Your task to perform on an android device: check android version Image 0: 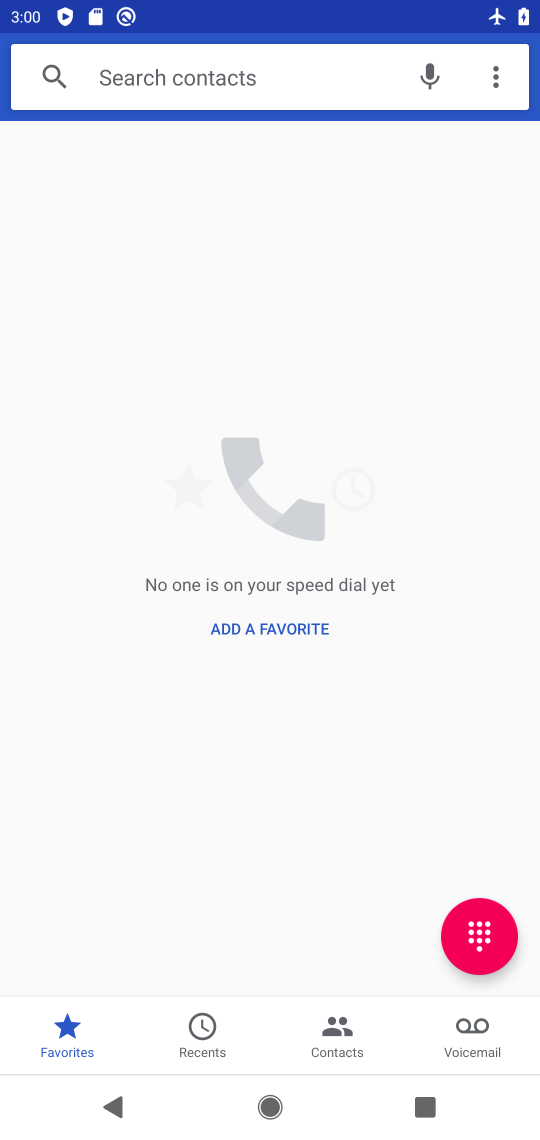
Step 0: press home button
Your task to perform on an android device: check android version Image 1: 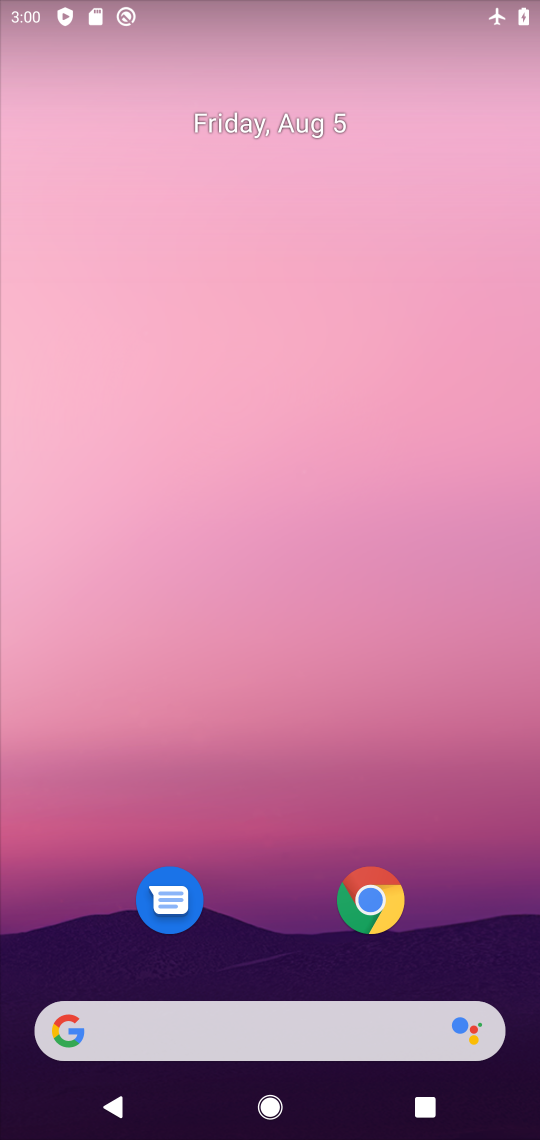
Step 1: drag from (266, 945) to (303, 274)
Your task to perform on an android device: check android version Image 2: 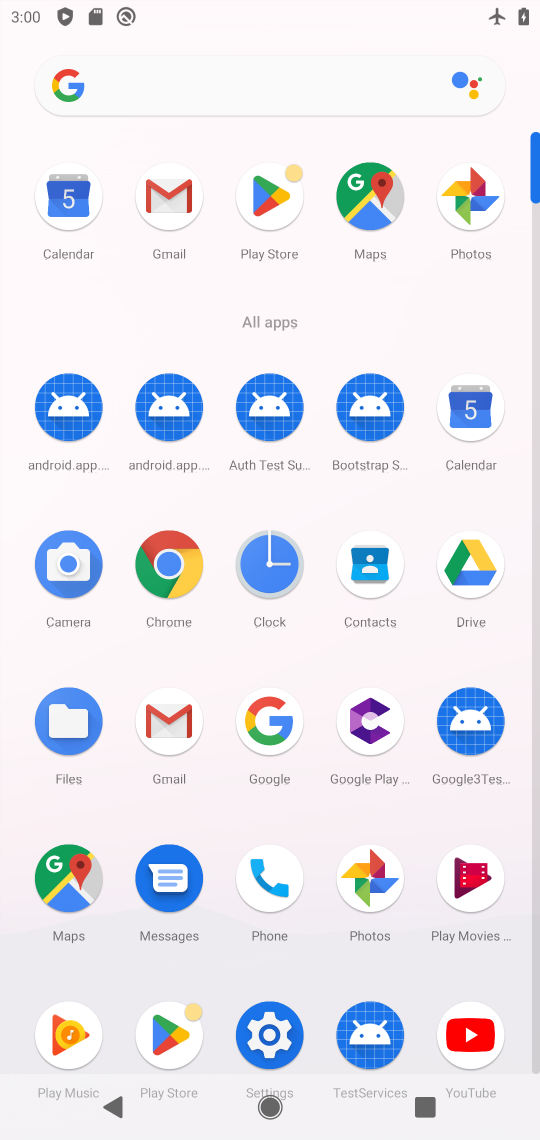
Step 2: click (296, 1021)
Your task to perform on an android device: check android version Image 3: 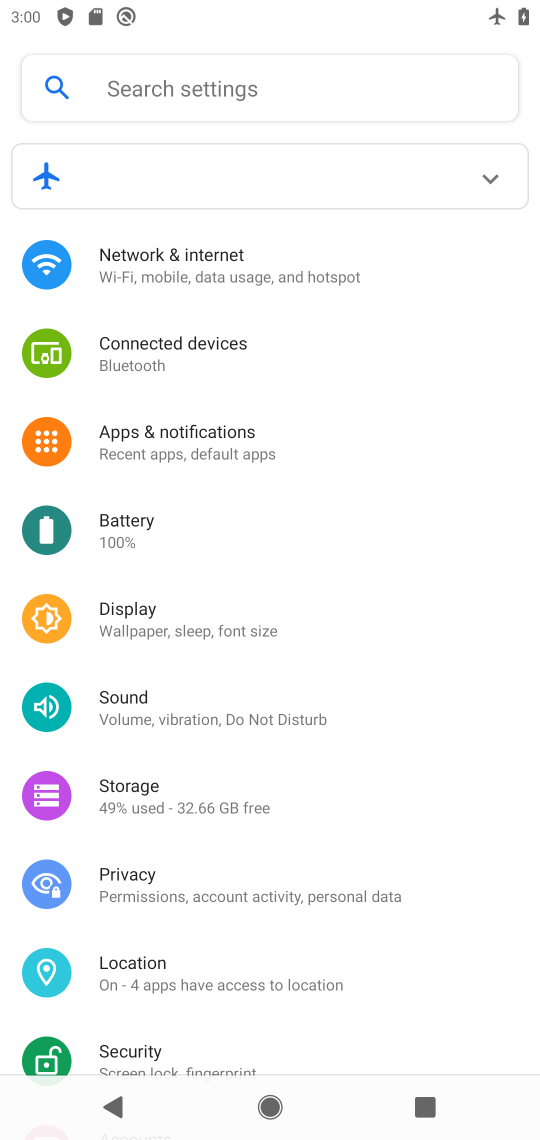
Step 3: drag from (313, 1030) to (230, 445)
Your task to perform on an android device: check android version Image 4: 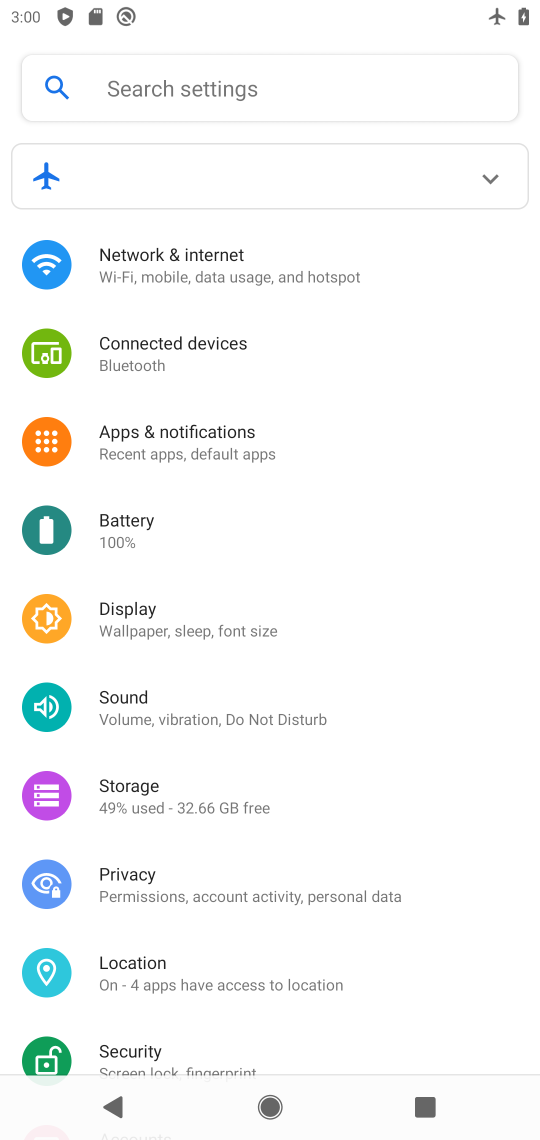
Step 4: drag from (434, 971) to (403, 406)
Your task to perform on an android device: check android version Image 5: 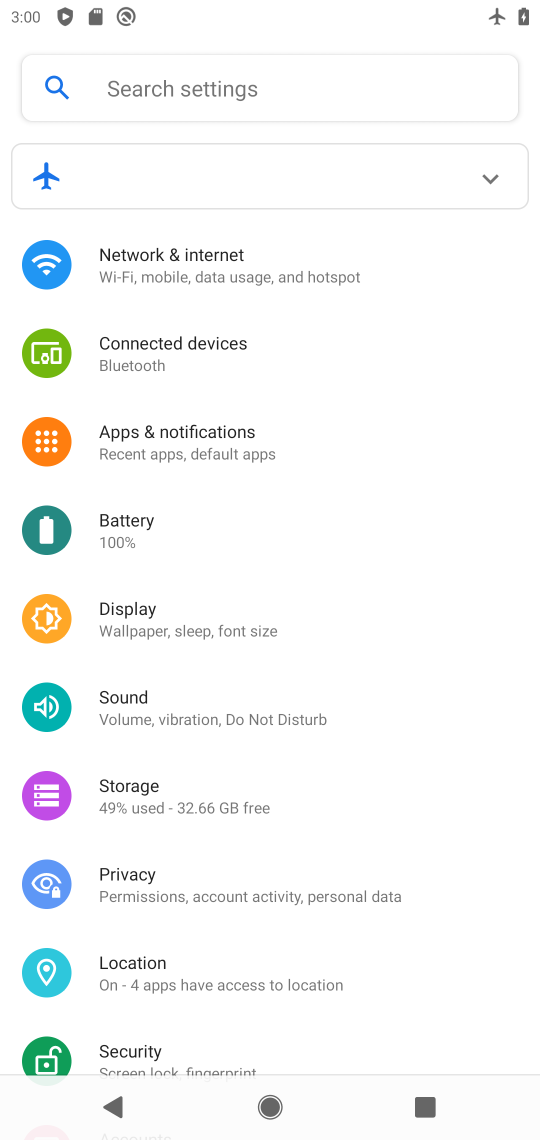
Step 5: drag from (400, 1064) to (329, 290)
Your task to perform on an android device: check android version Image 6: 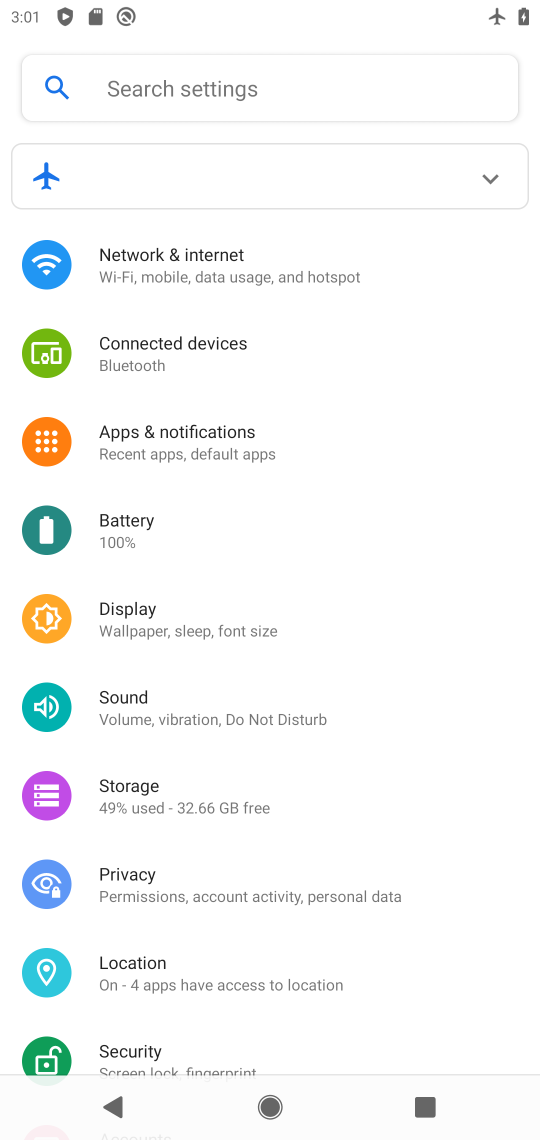
Step 6: drag from (356, 967) to (364, 261)
Your task to perform on an android device: check android version Image 7: 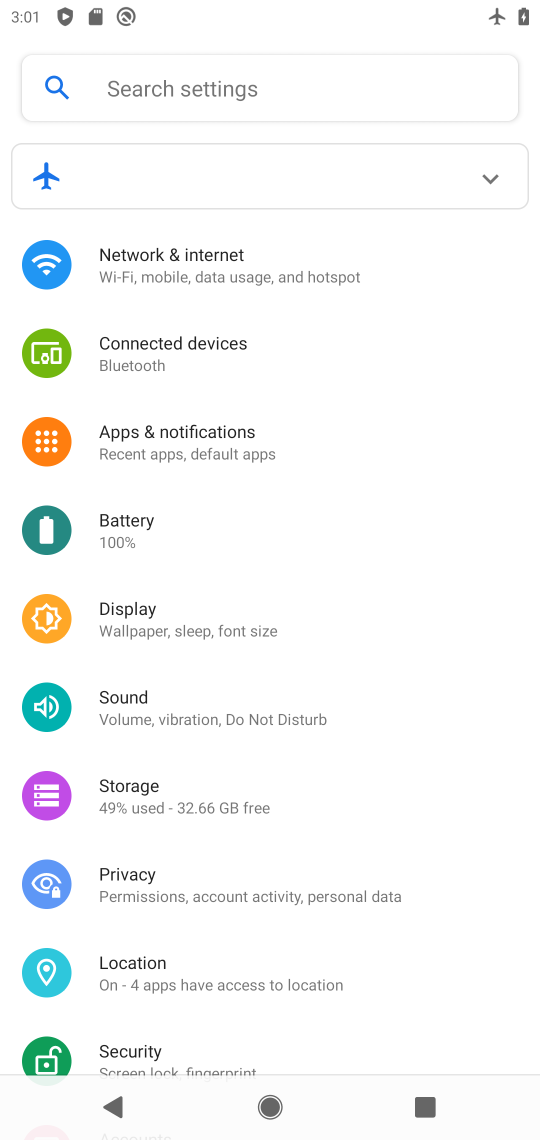
Step 7: drag from (411, 1053) to (379, 416)
Your task to perform on an android device: check android version Image 8: 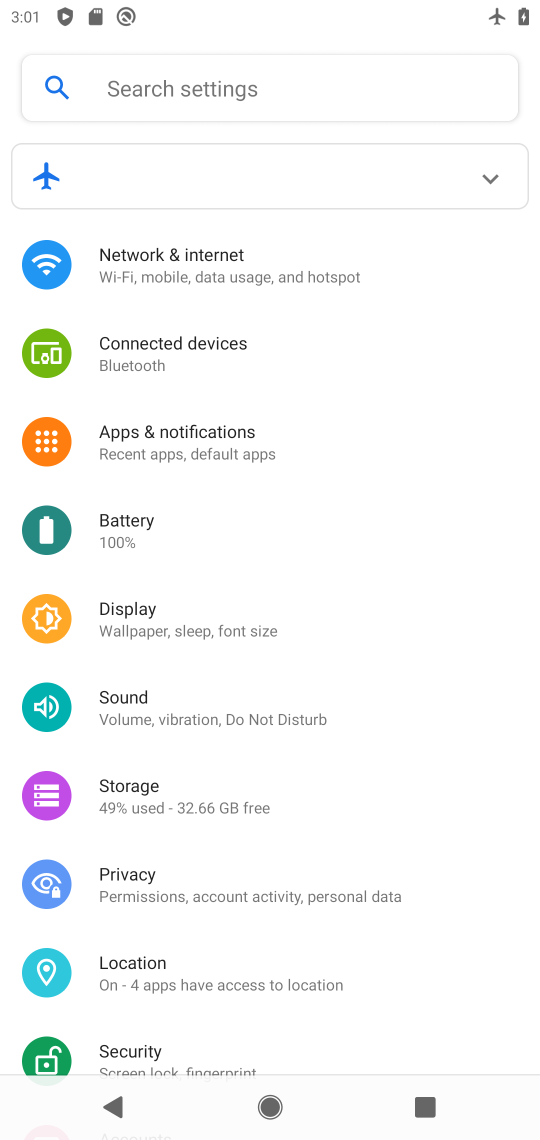
Step 8: drag from (365, 1048) to (298, 401)
Your task to perform on an android device: check android version Image 9: 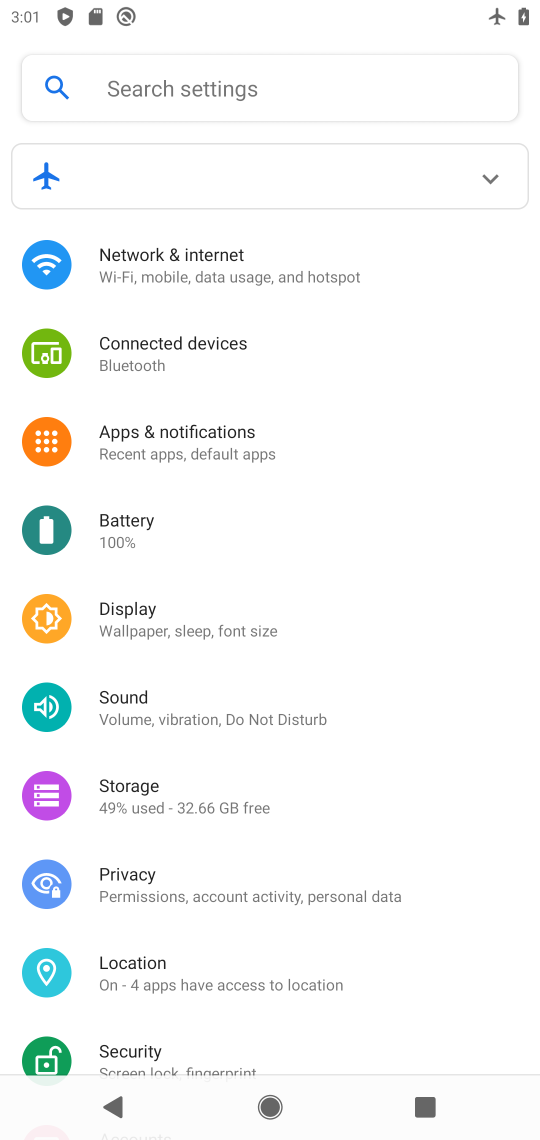
Step 9: drag from (399, 1069) to (337, 404)
Your task to perform on an android device: check android version Image 10: 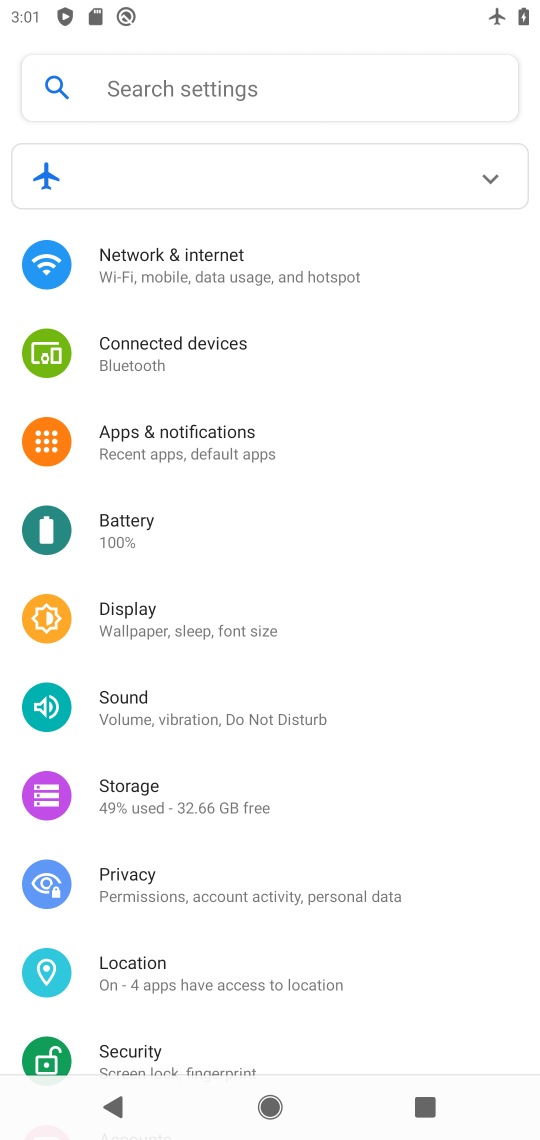
Step 10: drag from (439, 937) to (293, 341)
Your task to perform on an android device: check android version Image 11: 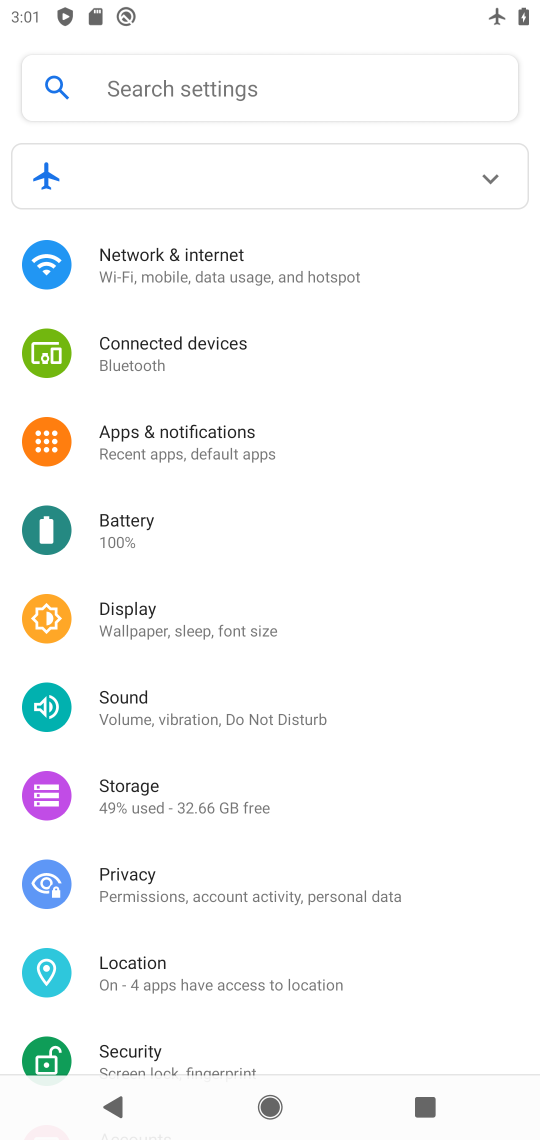
Step 11: drag from (328, 1038) to (295, 218)
Your task to perform on an android device: check android version Image 12: 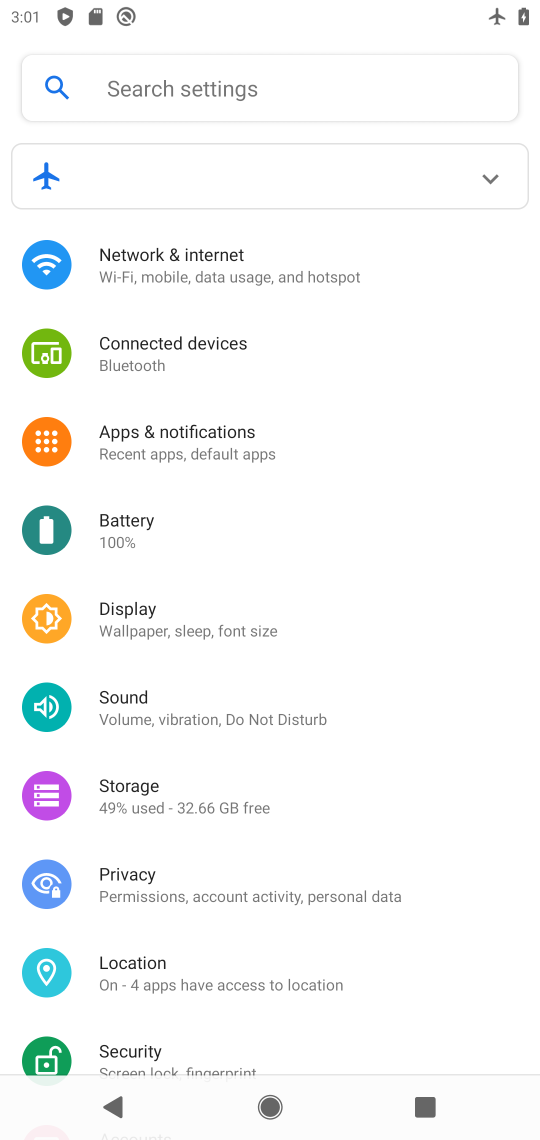
Step 12: drag from (362, 952) to (385, 285)
Your task to perform on an android device: check android version Image 13: 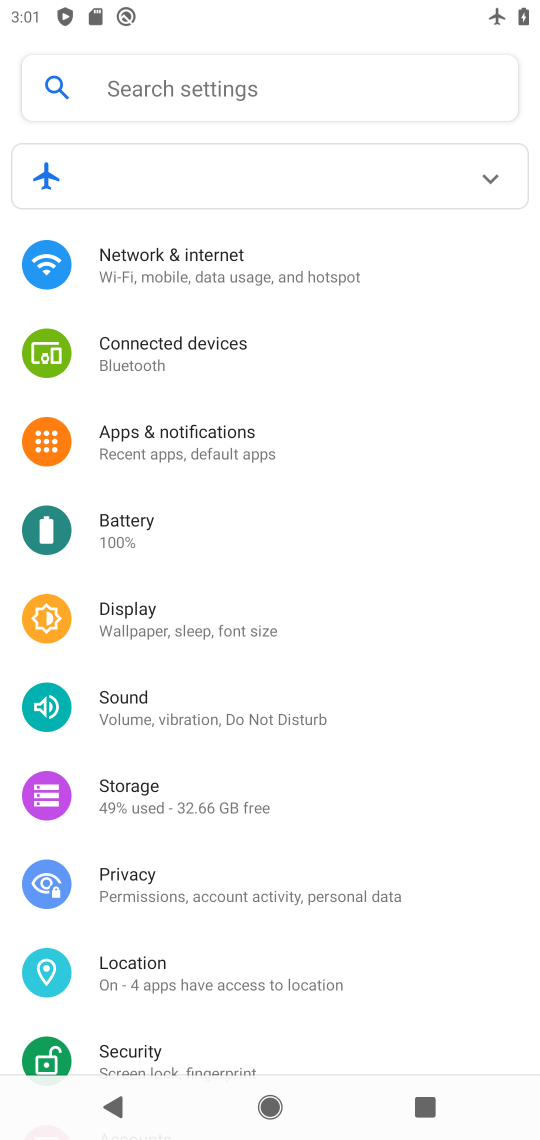
Step 13: drag from (410, 1033) to (377, 331)
Your task to perform on an android device: check android version Image 14: 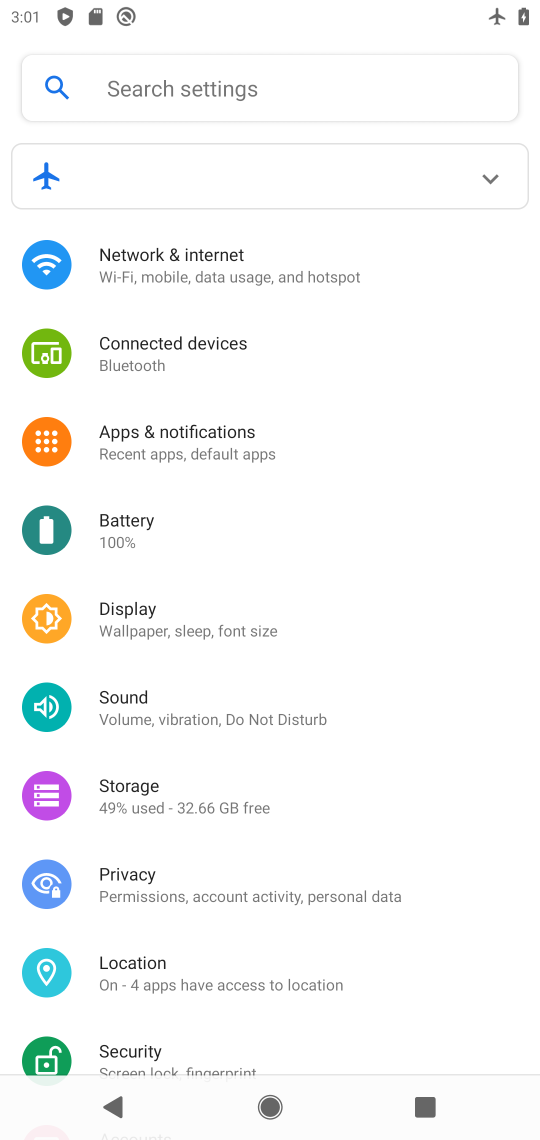
Step 14: drag from (440, 999) to (421, 108)
Your task to perform on an android device: check android version Image 15: 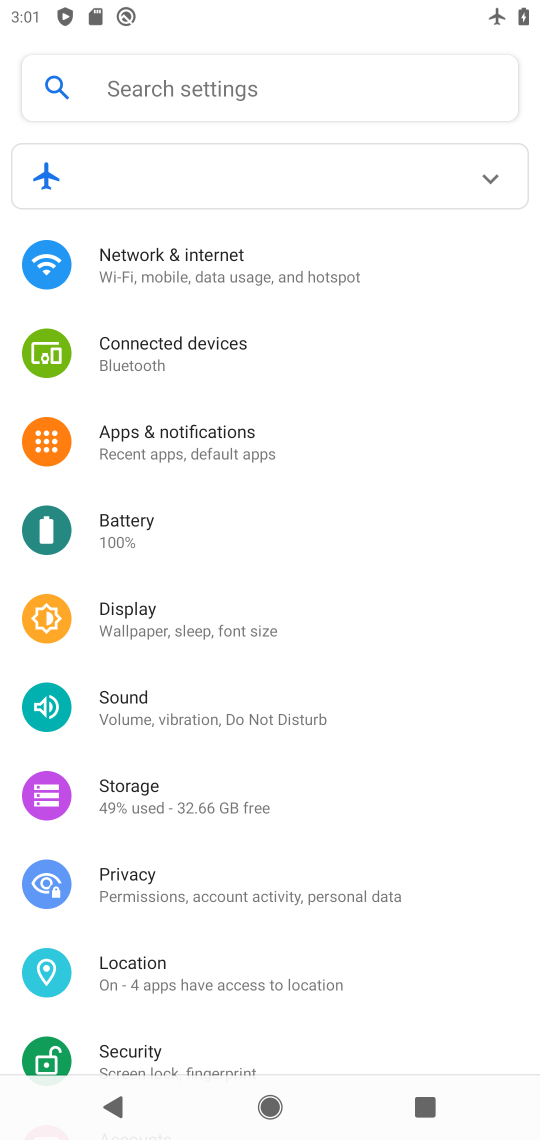
Step 15: drag from (392, 1023) to (402, 22)
Your task to perform on an android device: check android version Image 16: 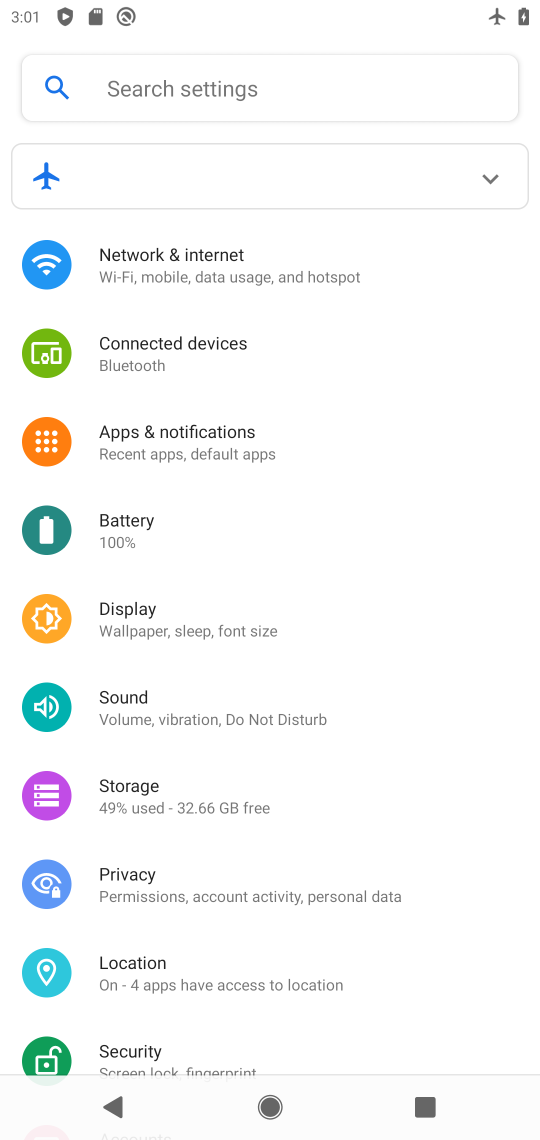
Step 16: drag from (393, 953) to (393, 193)
Your task to perform on an android device: check android version Image 17: 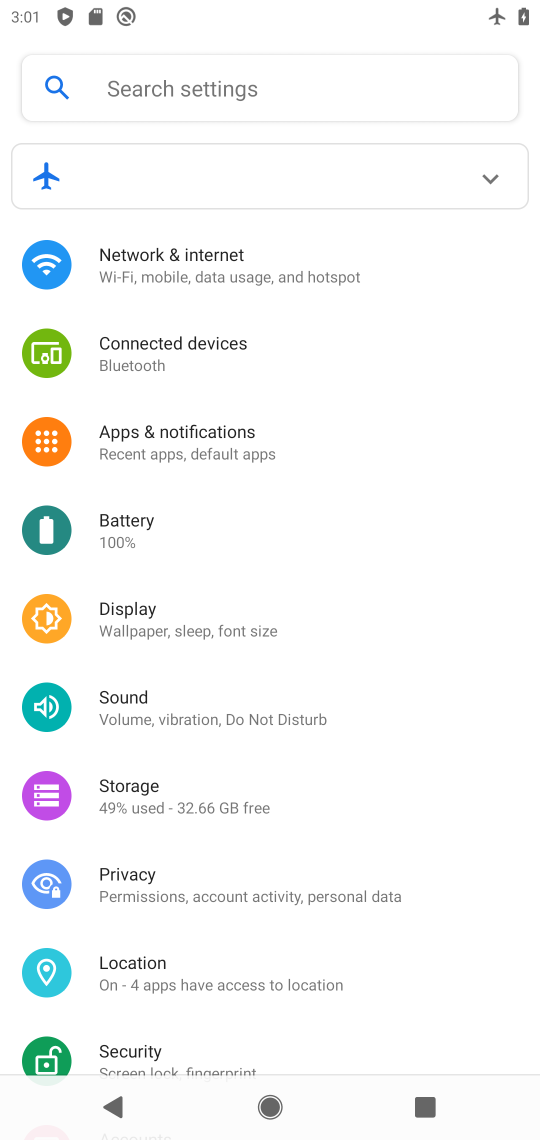
Step 17: drag from (409, 1013) to (373, 8)
Your task to perform on an android device: check android version Image 18: 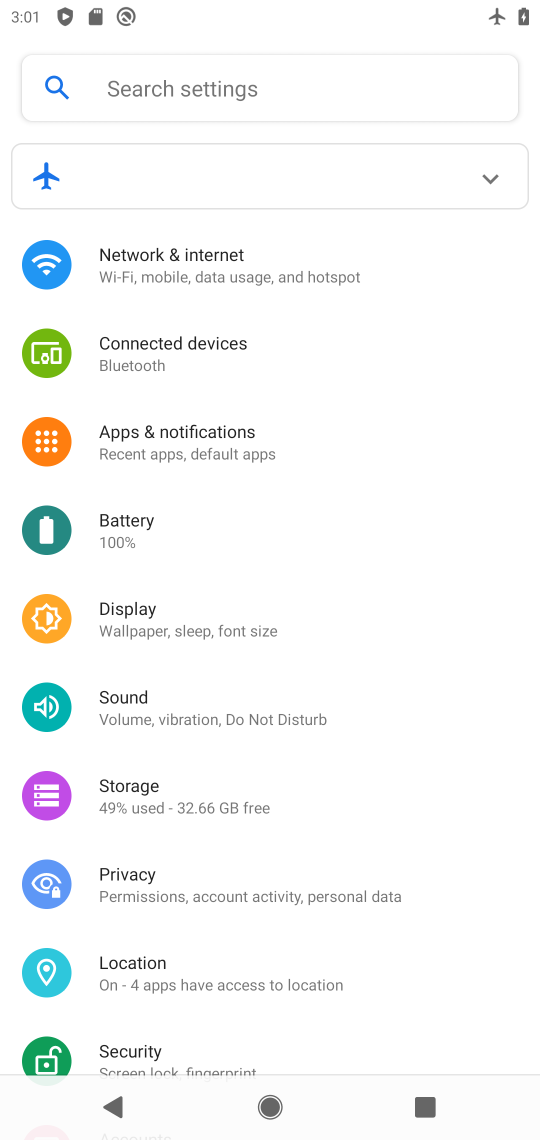
Step 18: drag from (407, 981) to (448, 146)
Your task to perform on an android device: check android version Image 19: 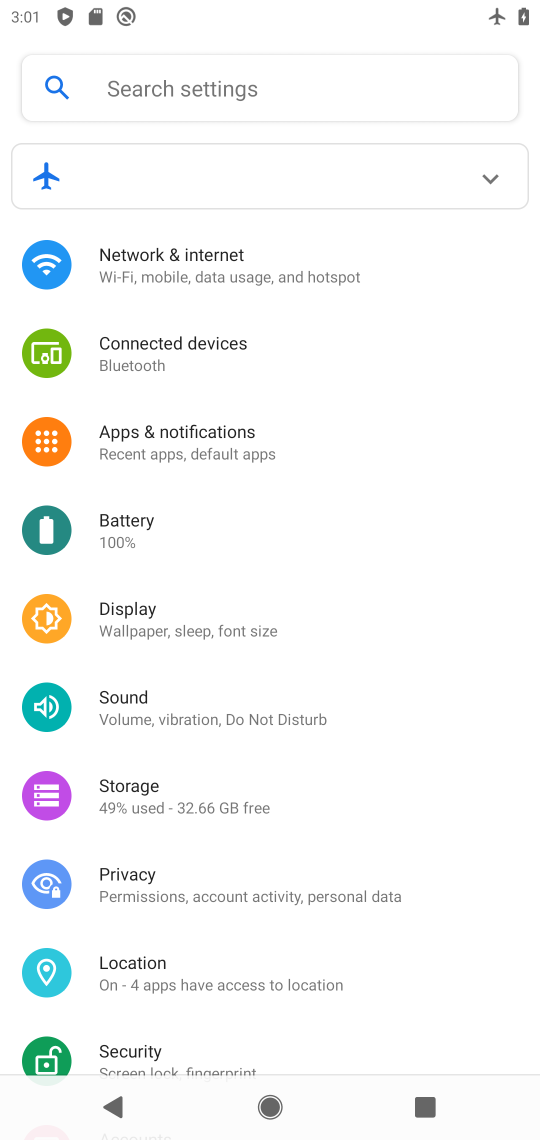
Step 19: drag from (412, 1012) to (322, 212)
Your task to perform on an android device: check android version Image 20: 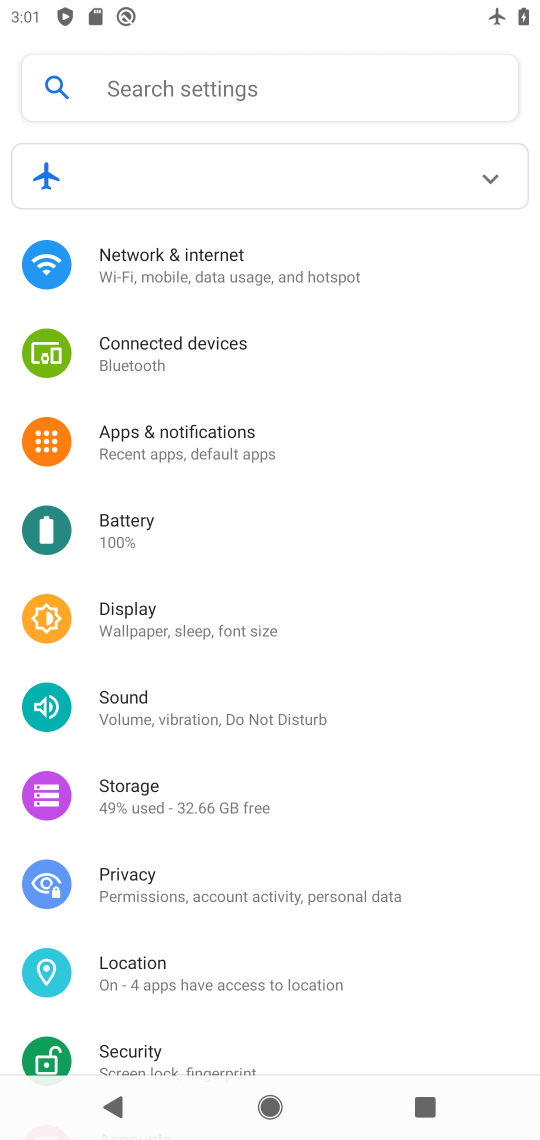
Step 20: drag from (379, 1012) to (277, 124)
Your task to perform on an android device: check android version Image 21: 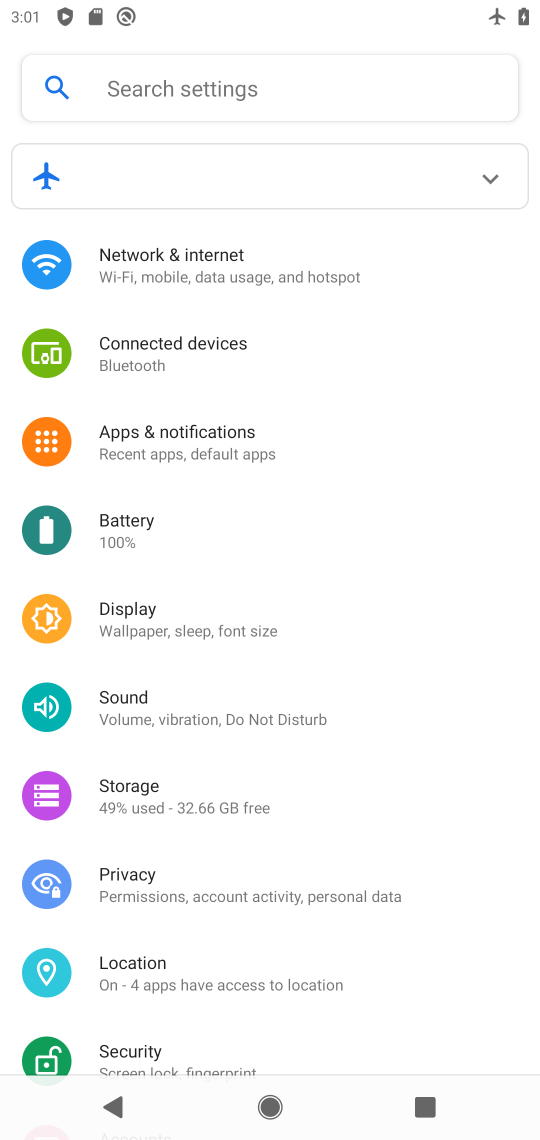
Step 21: drag from (347, 785) to (182, 9)
Your task to perform on an android device: check android version Image 22: 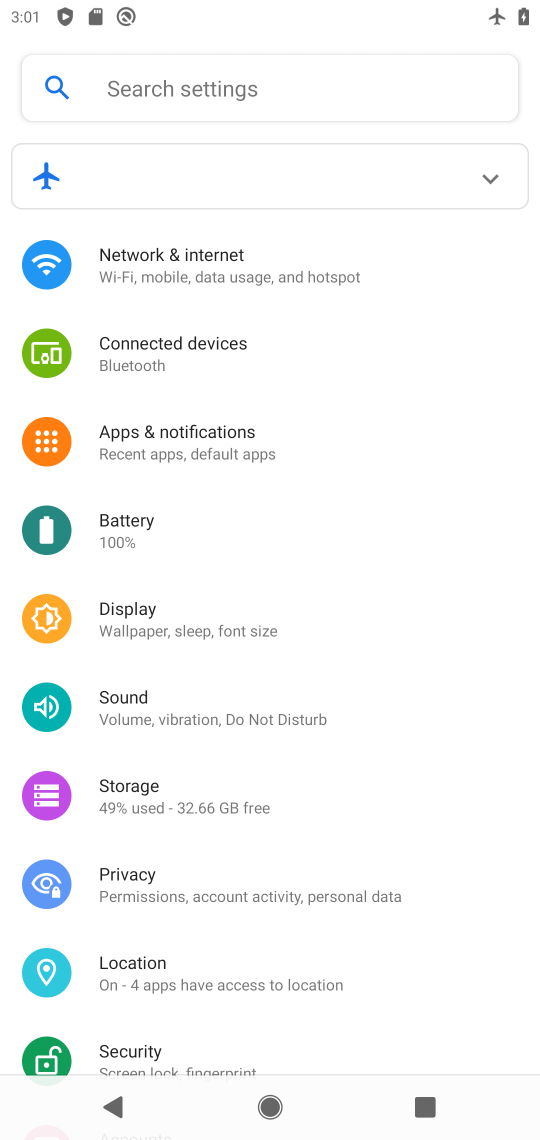
Step 22: drag from (402, 828) to (381, 35)
Your task to perform on an android device: check android version Image 23: 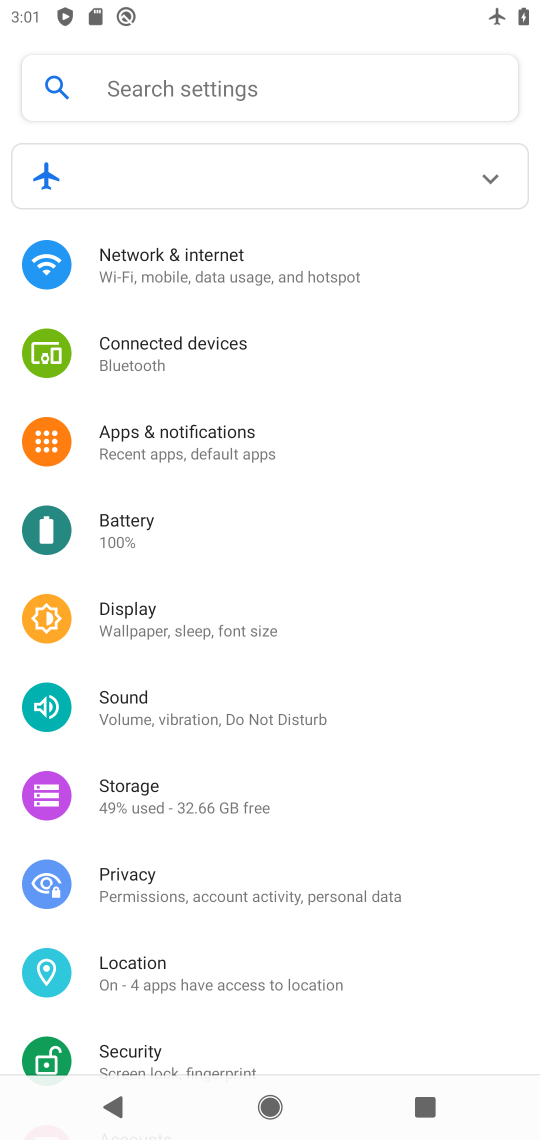
Step 23: drag from (393, 906) to (394, 106)
Your task to perform on an android device: check android version Image 24: 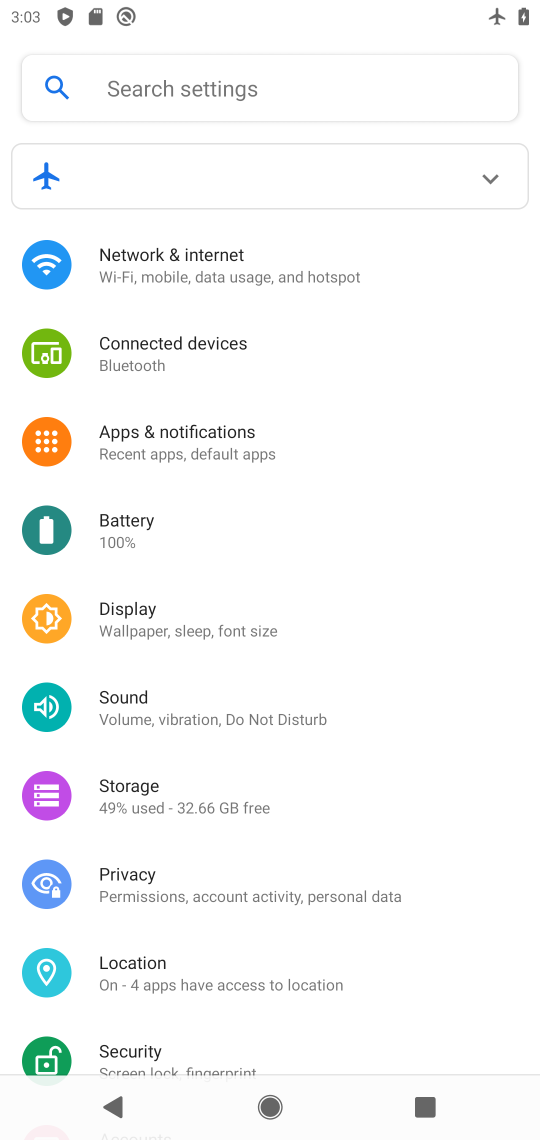
Step 24: drag from (402, 983) to (230, 118)
Your task to perform on an android device: check android version Image 25: 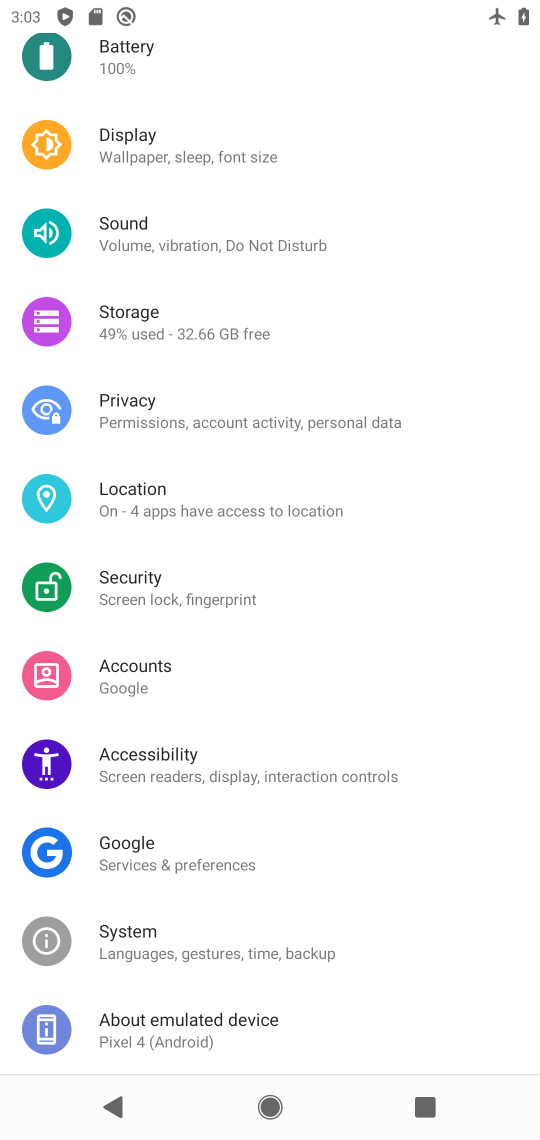
Step 25: click (127, 1029)
Your task to perform on an android device: check android version Image 26: 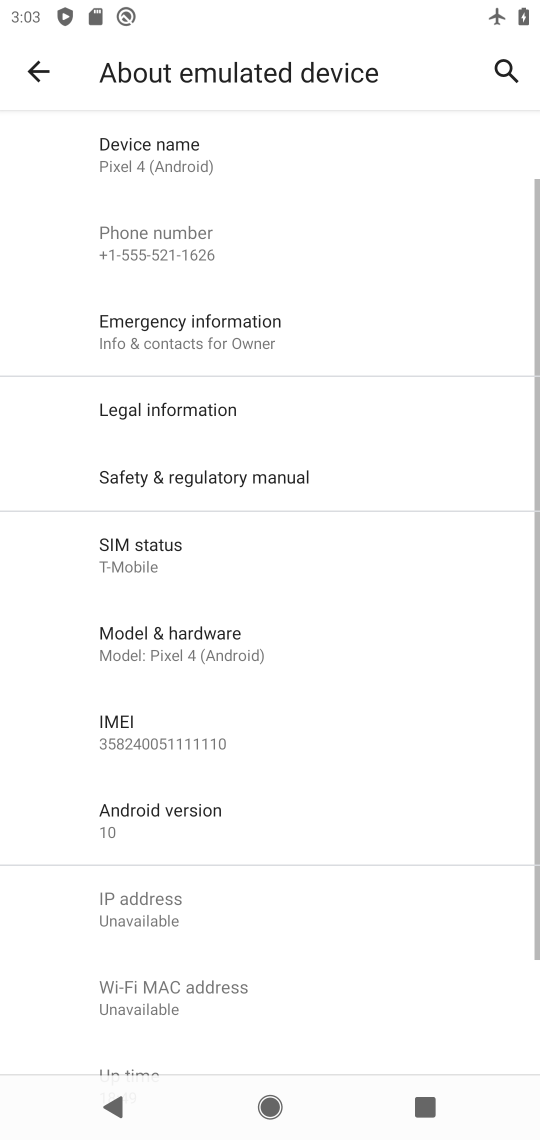
Step 26: task complete